Your task to perform on an android device: Open notification settings Image 0: 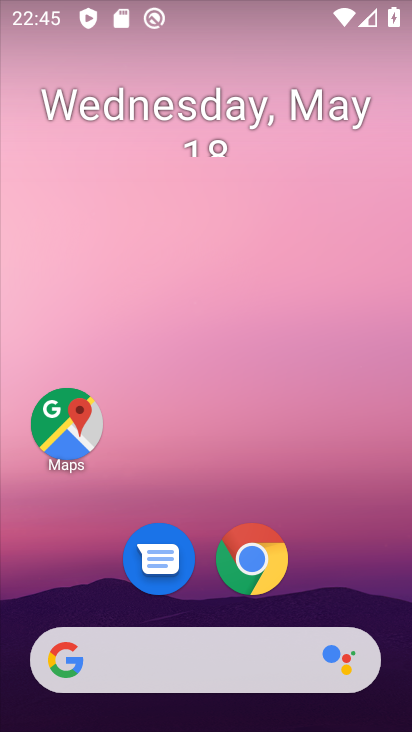
Step 0: drag from (240, 320) to (217, 188)
Your task to perform on an android device: Open notification settings Image 1: 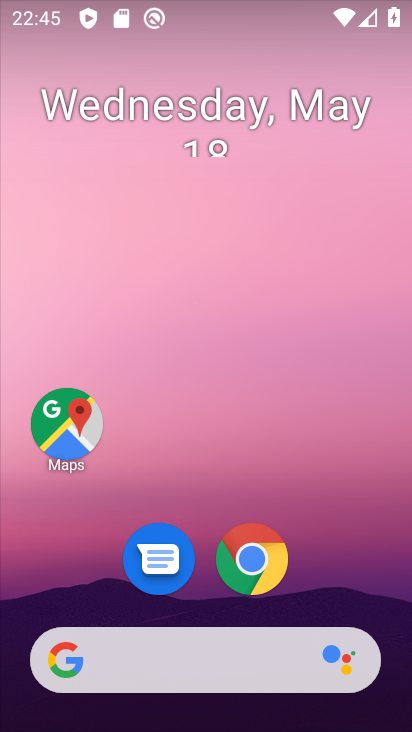
Step 1: drag from (304, 604) to (218, 9)
Your task to perform on an android device: Open notification settings Image 2: 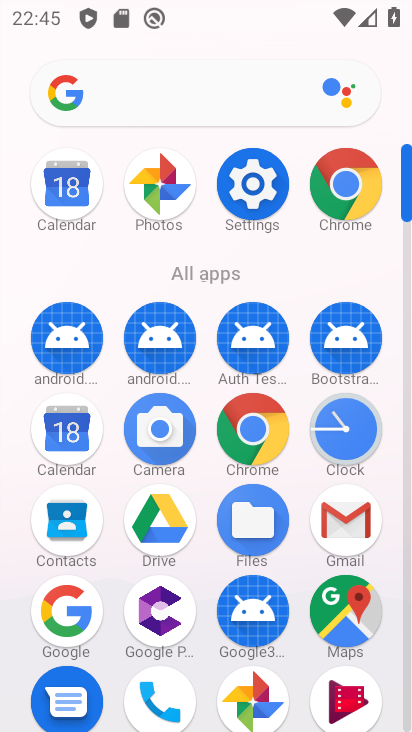
Step 2: click (251, 173)
Your task to perform on an android device: Open notification settings Image 3: 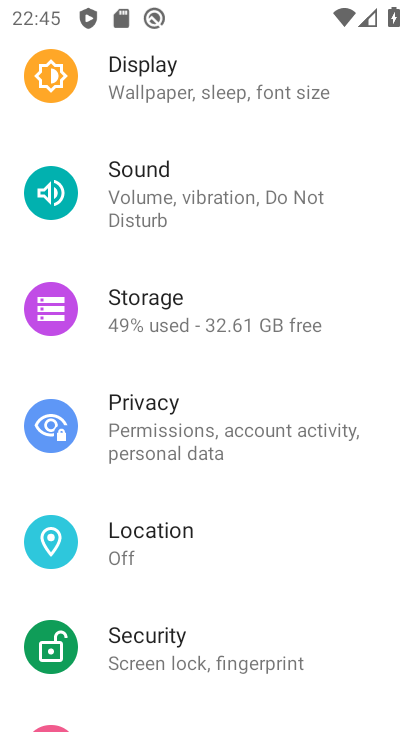
Step 3: drag from (173, 157) to (180, 461)
Your task to perform on an android device: Open notification settings Image 4: 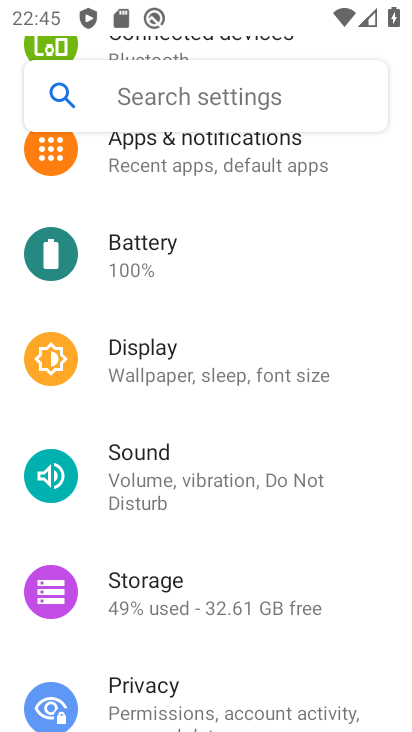
Step 4: click (136, 172)
Your task to perform on an android device: Open notification settings Image 5: 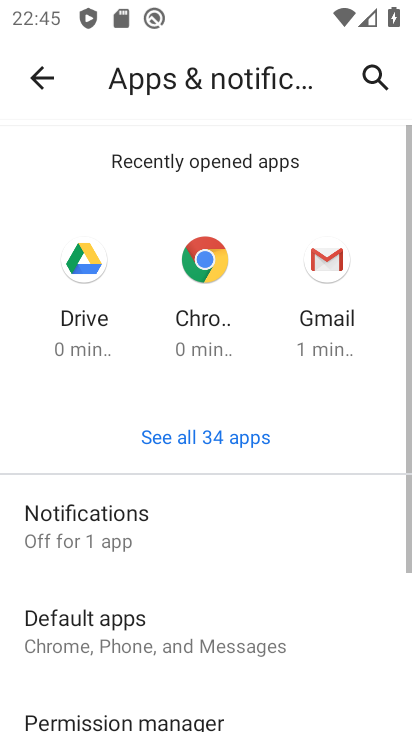
Step 5: click (107, 539)
Your task to perform on an android device: Open notification settings Image 6: 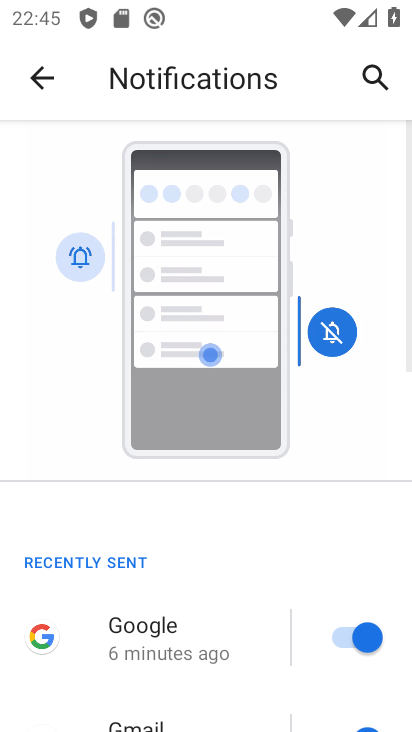
Step 6: task complete